Your task to perform on an android device: add a contact in the contacts app Image 0: 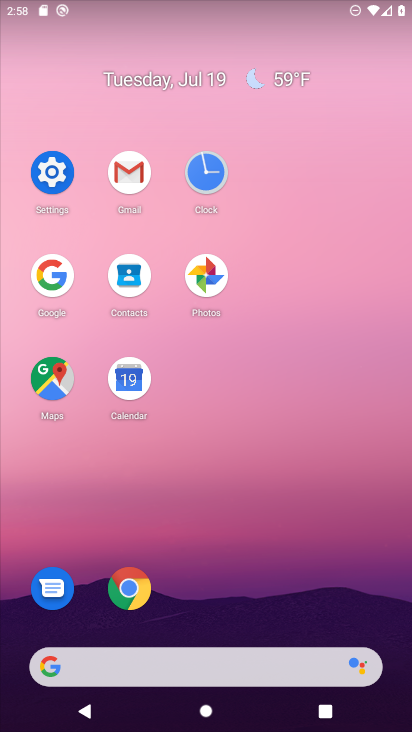
Step 0: drag from (321, 488) to (350, 140)
Your task to perform on an android device: add a contact in the contacts app Image 1: 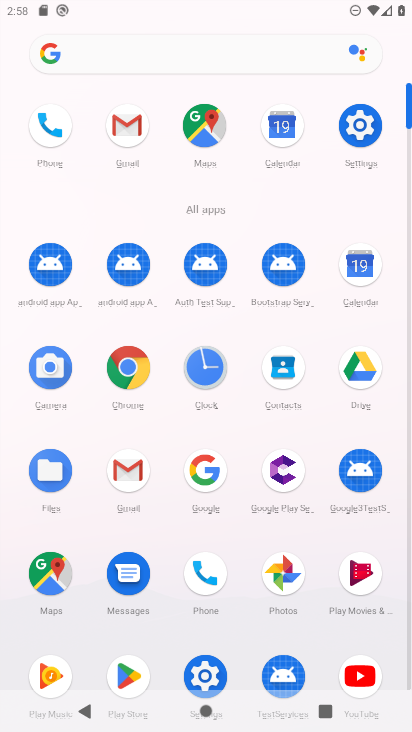
Step 1: click (296, 372)
Your task to perform on an android device: add a contact in the contacts app Image 2: 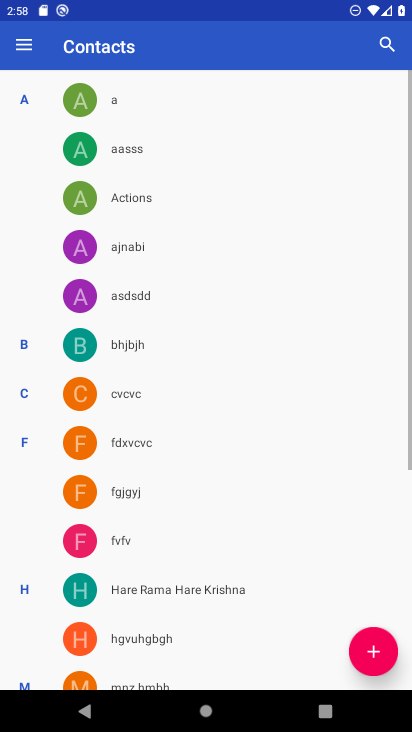
Step 2: click (376, 641)
Your task to perform on an android device: add a contact in the contacts app Image 3: 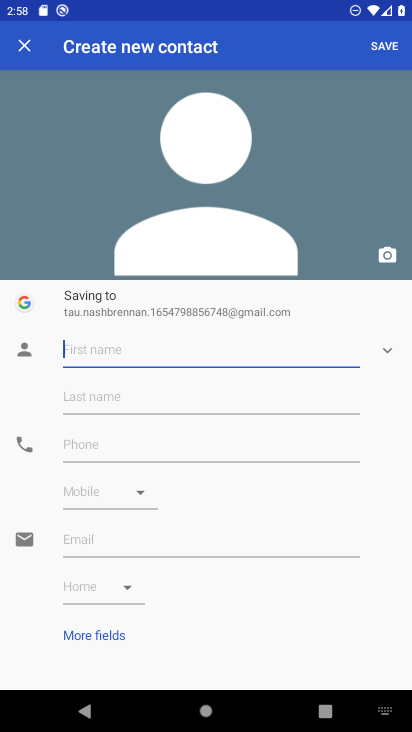
Step 3: type "eed"
Your task to perform on an android device: add a contact in the contacts app Image 4: 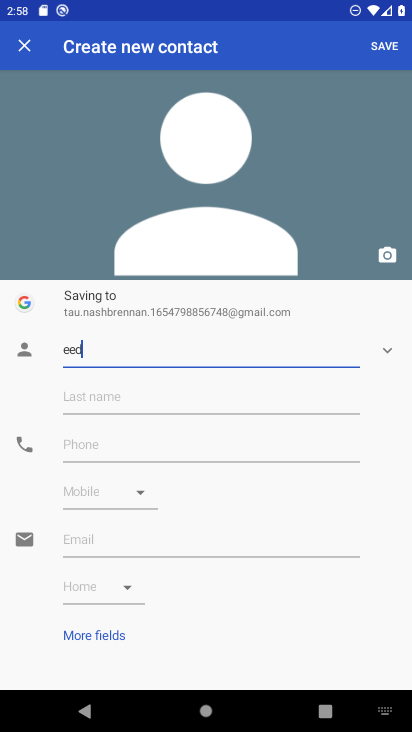
Step 4: click (102, 450)
Your task to perform on an android device: add a contact in the contacts app Image 5: 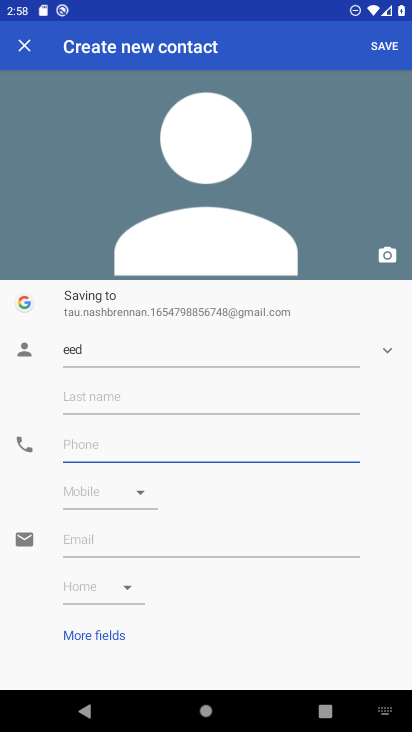
Step 5: type "3345334545"
Your task to perform on an android device: add a contact in the contacts app Image 6: 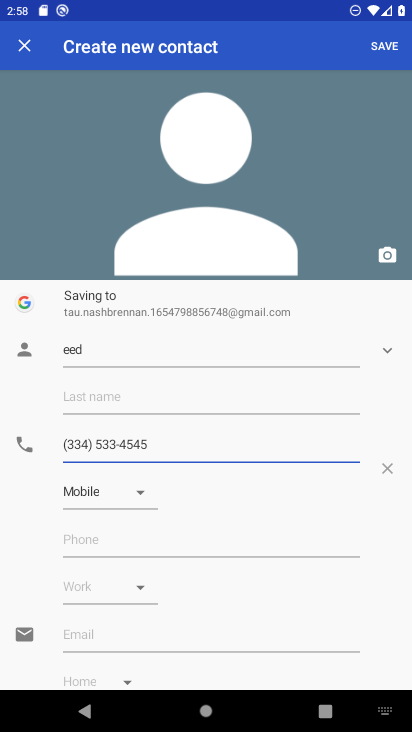
Step 6: click (384, 53)
Your task to perform on an android device: add a contact in the contacts app Image 7: 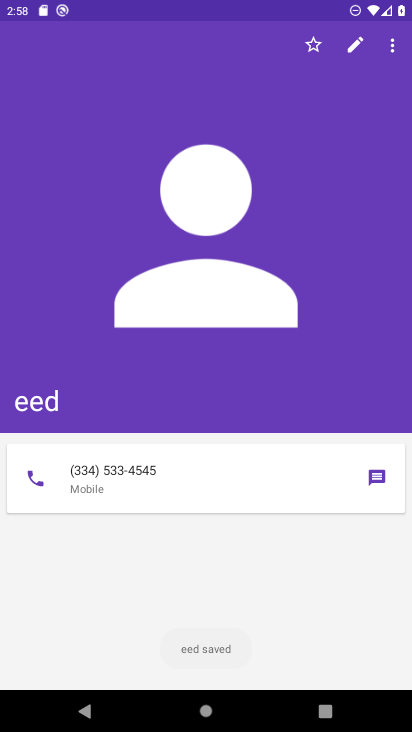
Step 7: task complete